Your task to perform on an android device: turn on sleep mode Image 0: 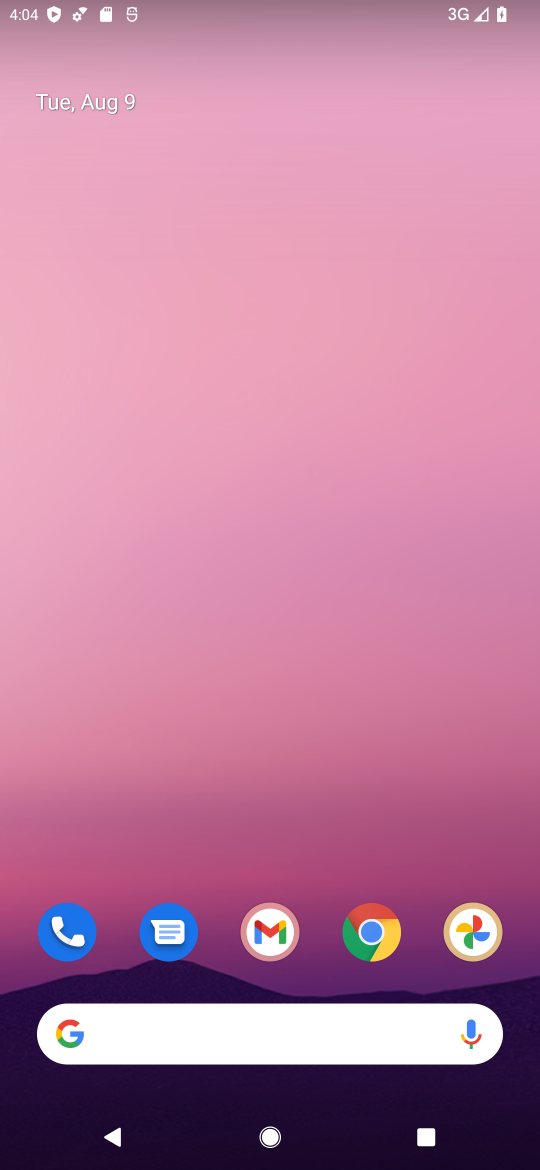
Step 0: drag from (293, 1035) to (362, 124)
Your task to perform on an android device: turn on sleep mode Image 1: 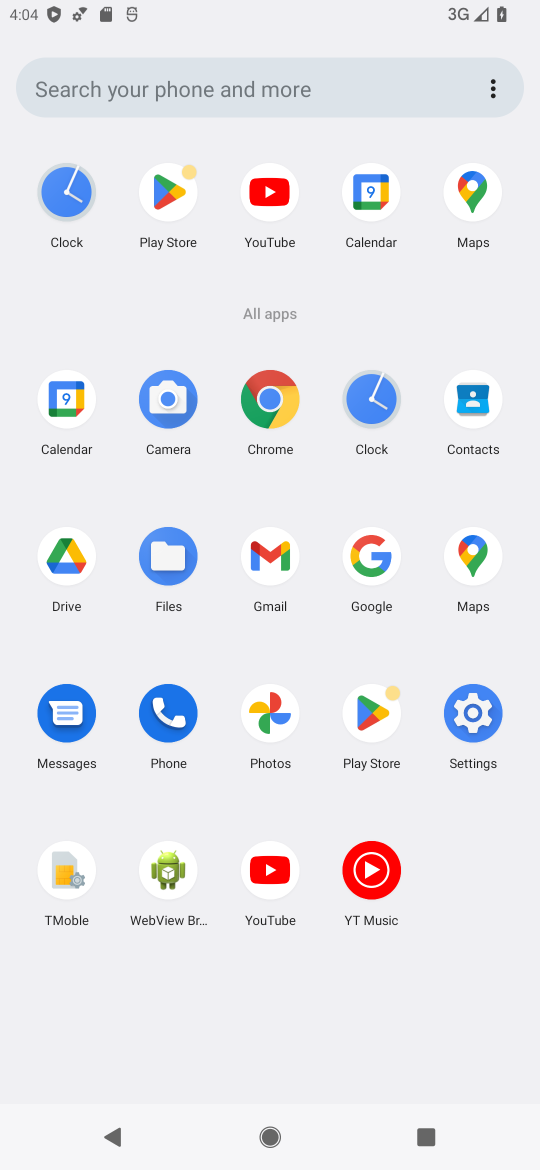
Step 1: click (469, 698)
Your task to perform on an android device: turn on sleep mode Image 2: 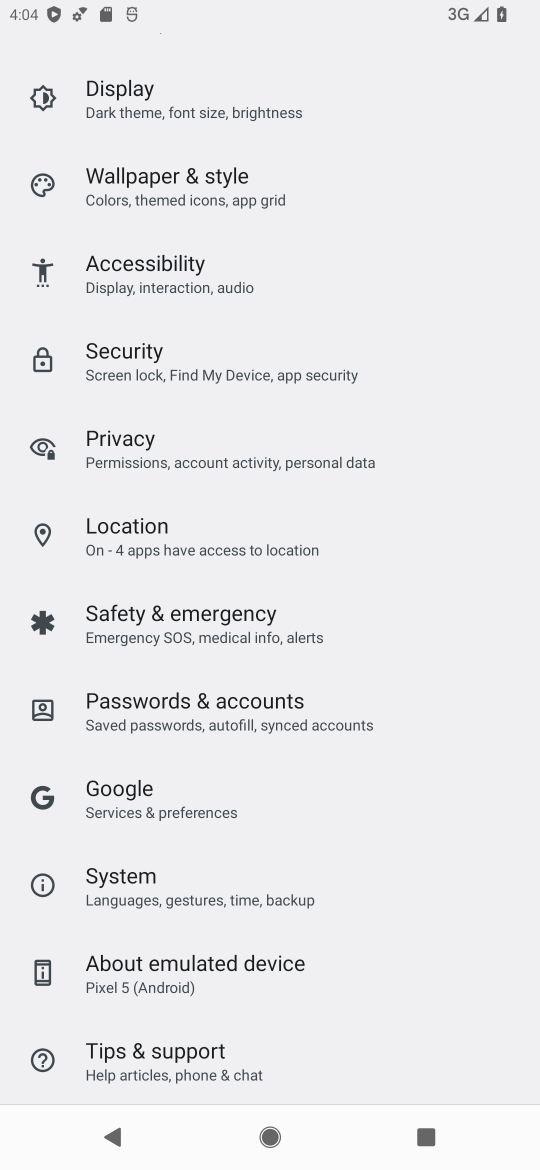
Step 2: task complete